Your task to perform on an android device: Search for sushi restaurants on Maps Image 0: 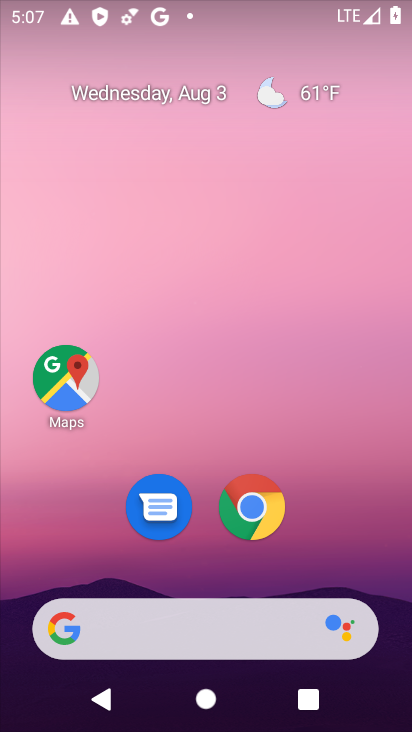
Step 0: drag from (353, 532) to (207, 29)
Your task to perform on an android device: Search for sushi restaurants on Maps Image 1: 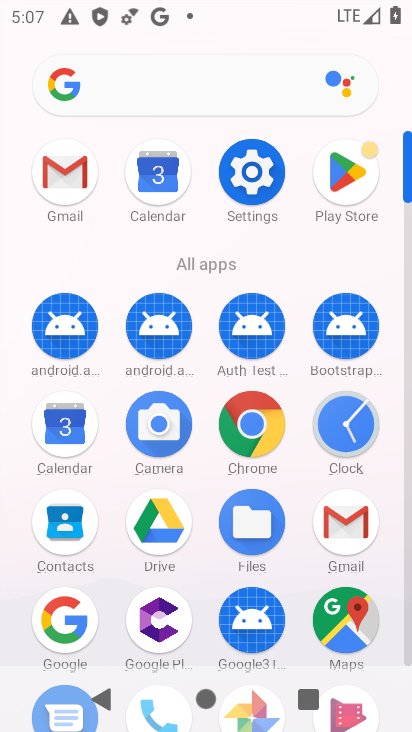
Step 1: click (344, 614)
Your task to perform on an android device: Search for sushi restaurants on Maps Image 2: 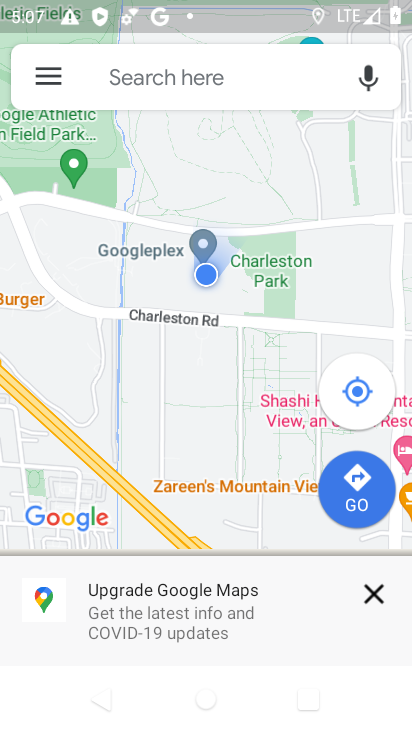
Step 2: click (215, 90)
Your task to perform on an android device: Search for sushi restaurants on Maps Image 3: 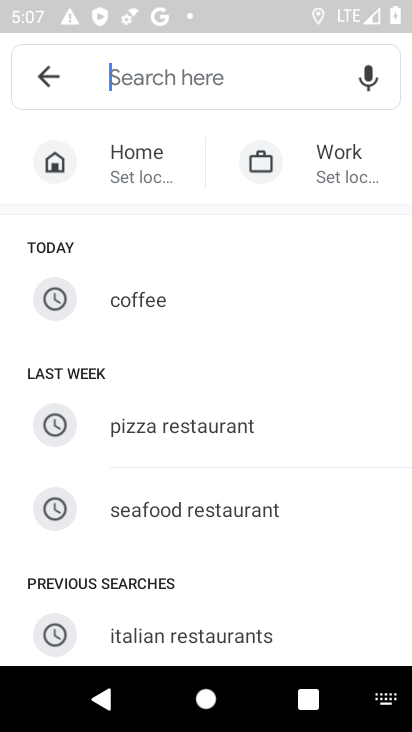
Step 3: type "sushi restaurants"
Your task to perform on an android device: Search for sushi restaurants on Maps Image 4: 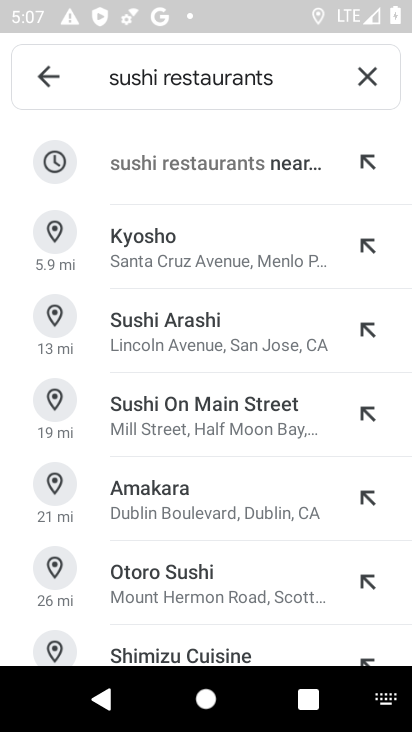
Step 4: press enter
Your task to perform on an android device: Search for sushi restaurants on Maps Image 5: 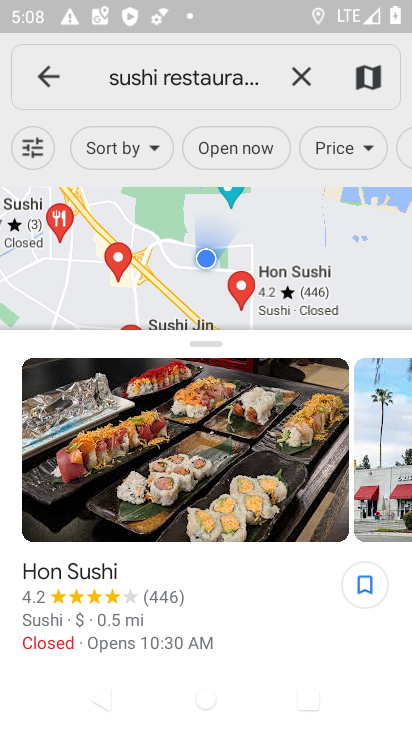
Step 5: task complete